Your task to perform on an android device: turn off priority inbox in the gmail app Image 0: 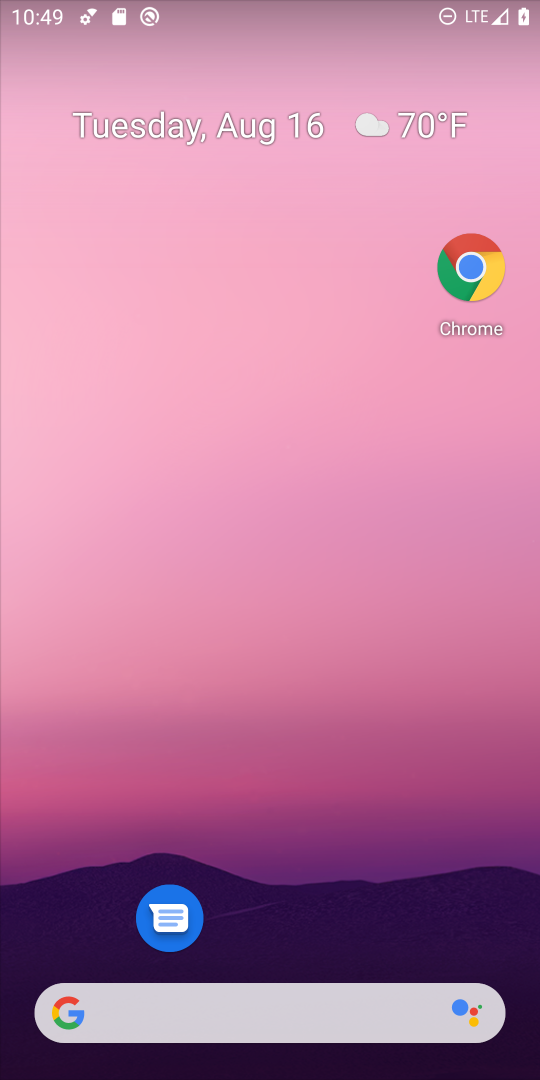
Step 0: drag from (262, 849) to (237, 98)
Your task to perform on an android device: turn off priority inbox in the gmail app Image 1: 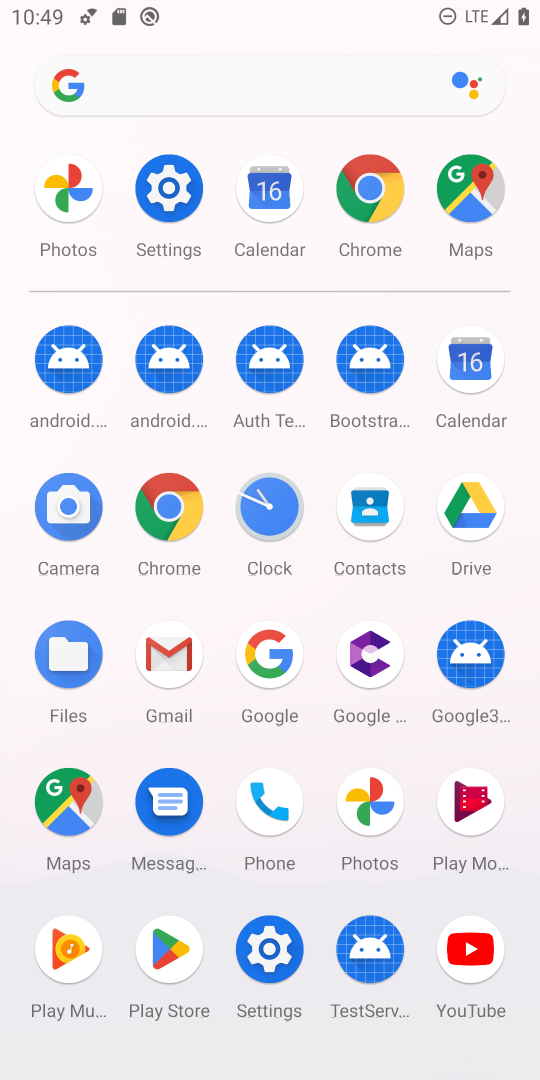
Step 1: click (175, 666)
Your task to perform on an android device: turn off priority inbox in the gmail app Image 2: 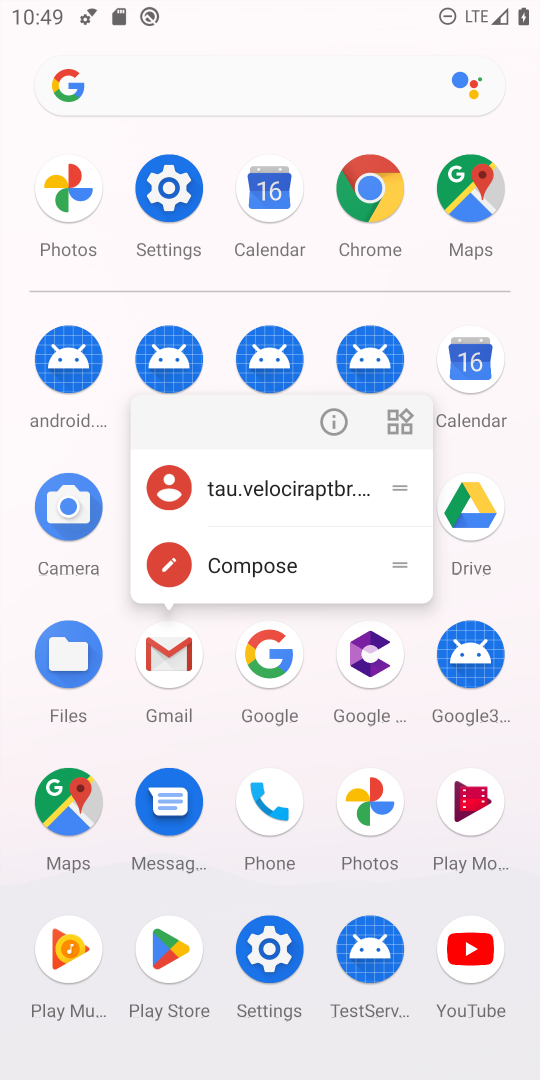
Step 2: click (182, 687)
Your task to perform on an android device: turn off priority inbox in the gmail app Image 3: 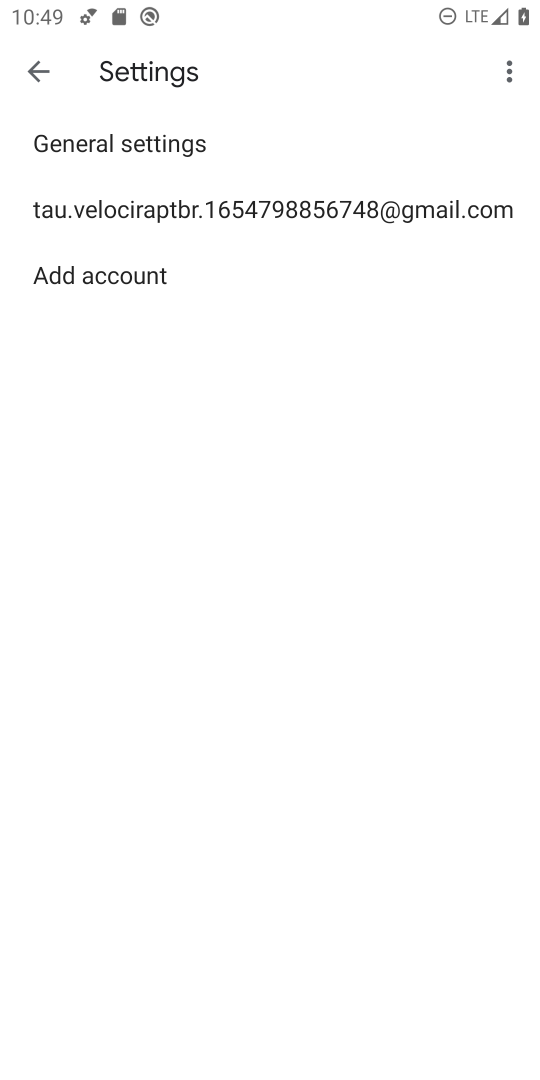
Step 3: click (249, 212)
Your task to perform on an android device: turn off priority inbox in the gmail app Image 4: 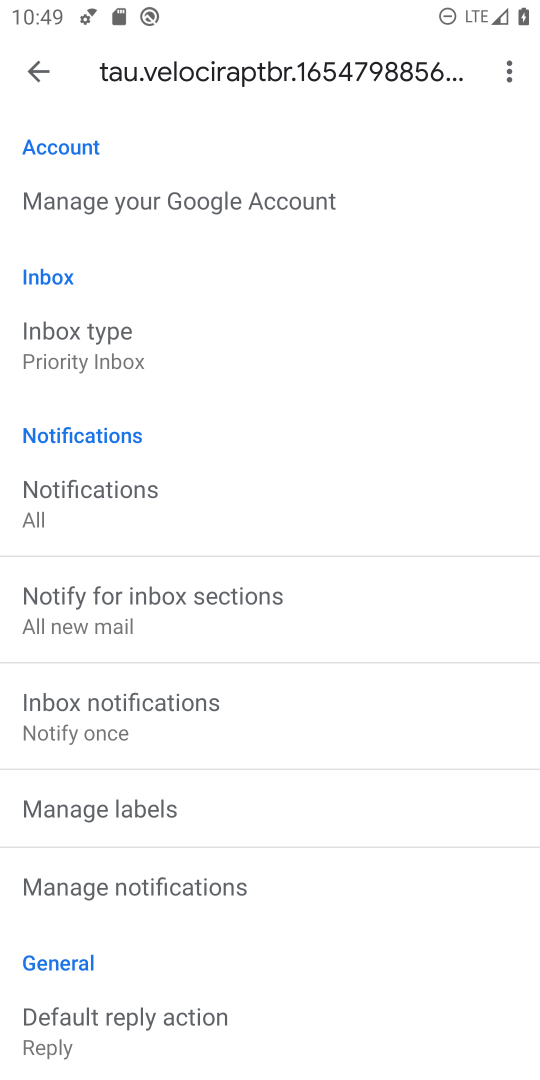
Step 4: click (117, 343)
Your task to perform on an android device: turn off priority inbox in the gmail app Image 5: 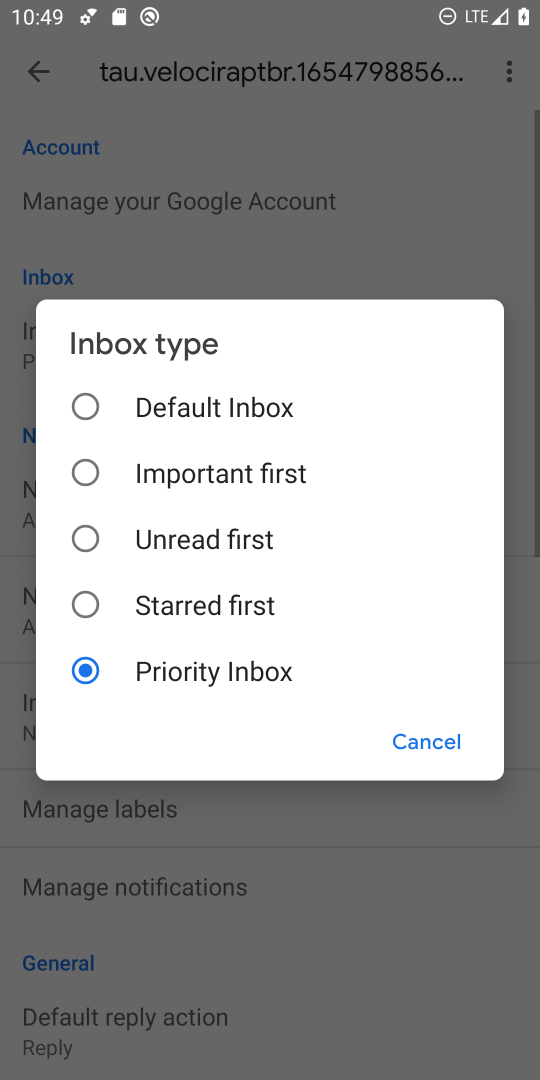
Step 5: click (161, 399)
Your task to perform on an android device: turn off priority inbox in the gmail app Image 6: 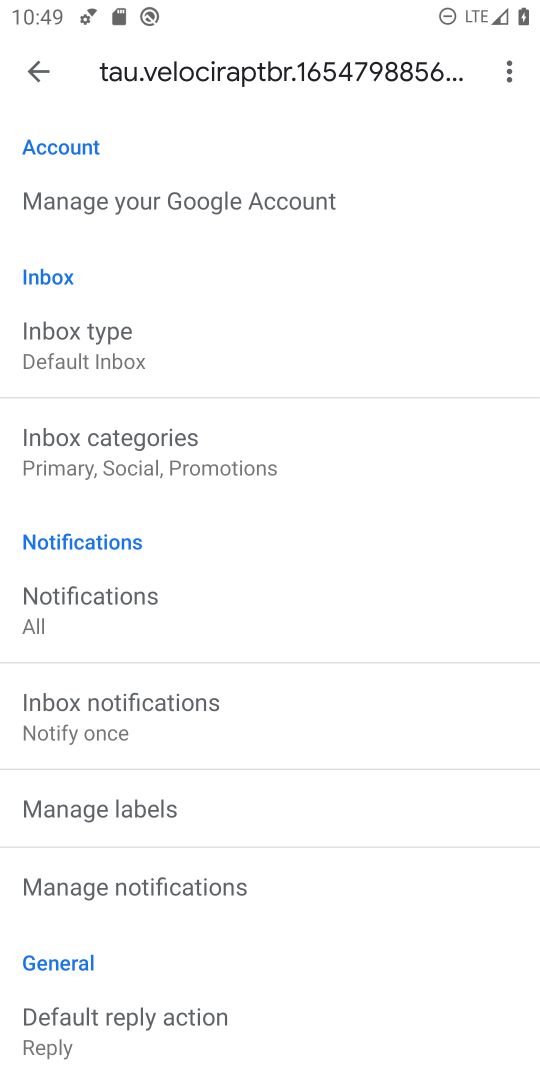
Step 6: task complete